Your task to perform on an android device: turn on bluetooth scan Image 0: 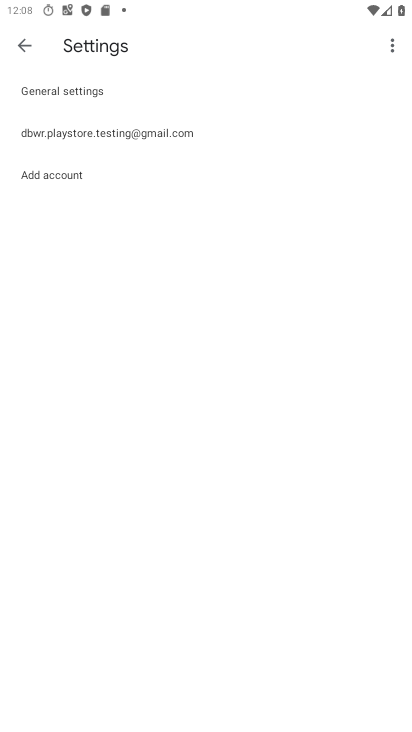
Step 0: press home button
Your task to perform on an android device: turn on bluetooth scan Image 1: 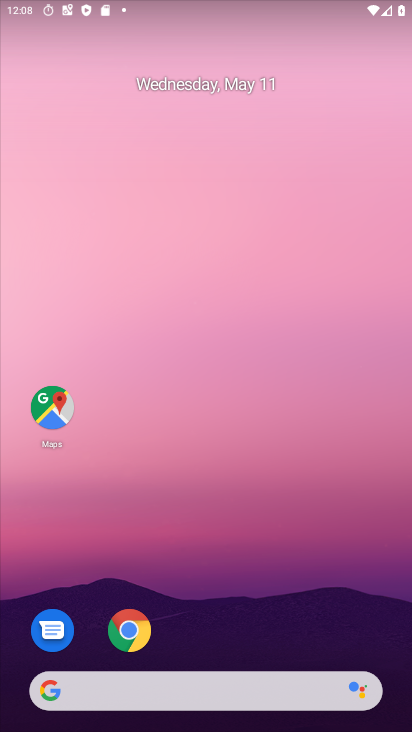
Step 1: drag from (220, 587) to (293, 77)
Your task to perform on an android device: turn on bluetooth scan Image 2: 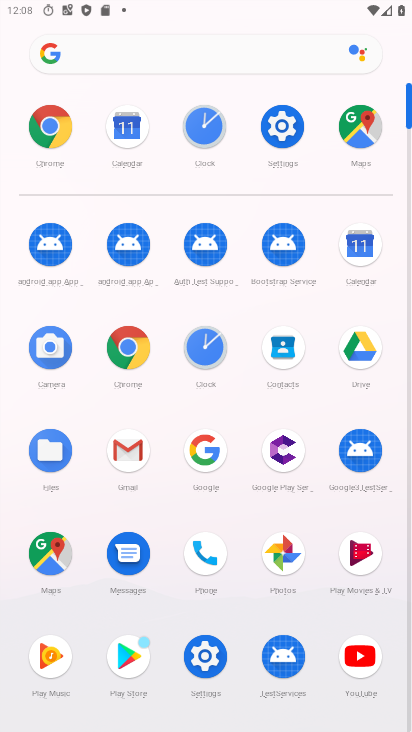
Step 2: click (271, 129)
Your task to perform on an android device: turn on bluetooth scan Image 3: 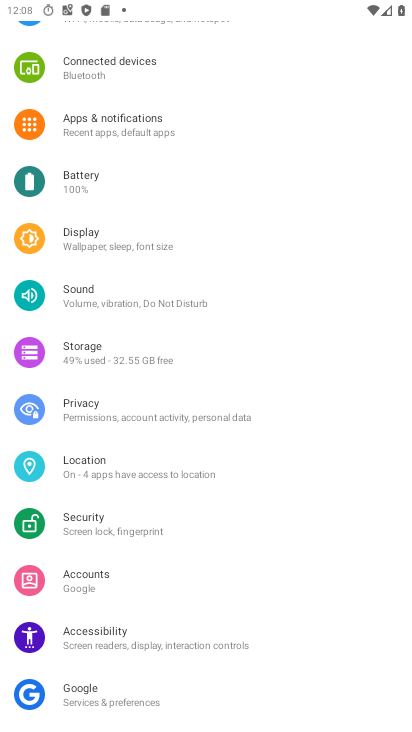
Step 3: drag from (139, 623) to (237, 221)
Your task to perform on an android device: turn on bluetooth scan Image 4: 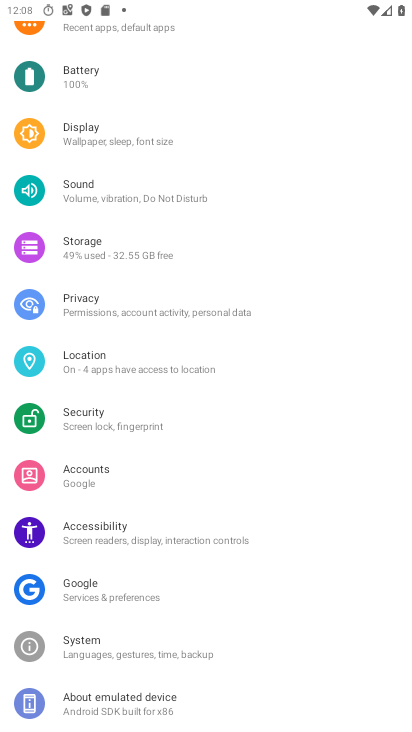
Step 4: click (117, 362)
Your task to perform on an android device: turn on bluetooth scan Image 5: 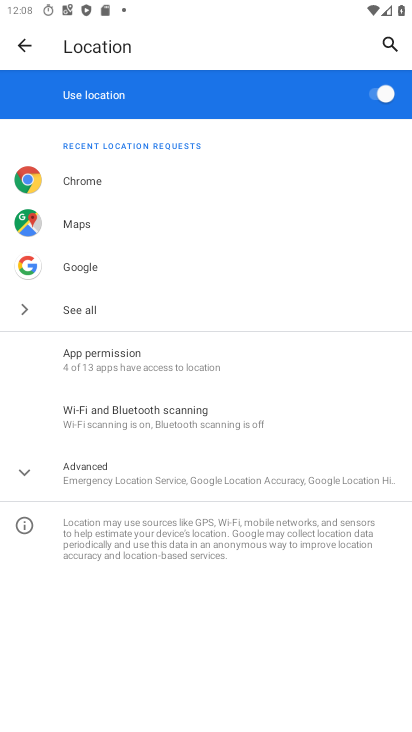
Step 5: click (102, 476)
Your task to perform on an android device: turn on bluetooth scan Image 6: 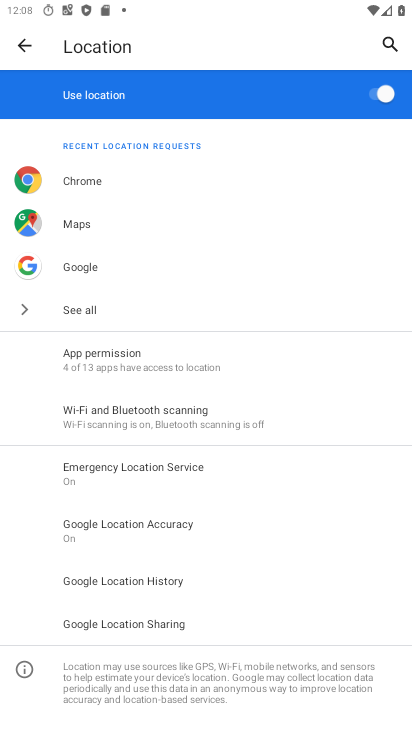
Step 6: click (153, 422)
Your task to perform on an android device: turn on bluetooth scan Image 7: 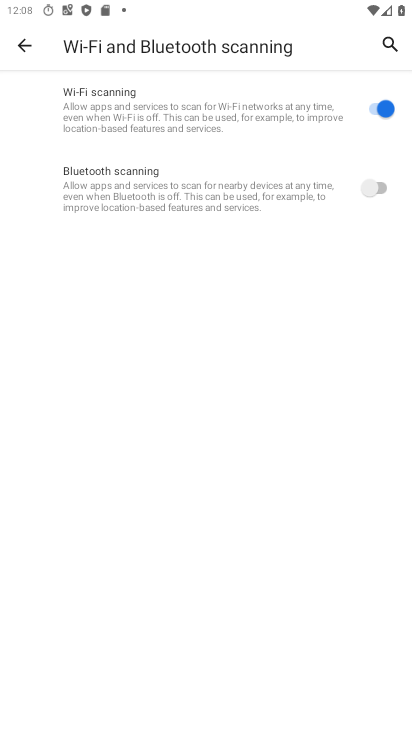
Step 7: click (359, 195)
Your task to perform on an android device: turn on bluetooth scan Image 8: 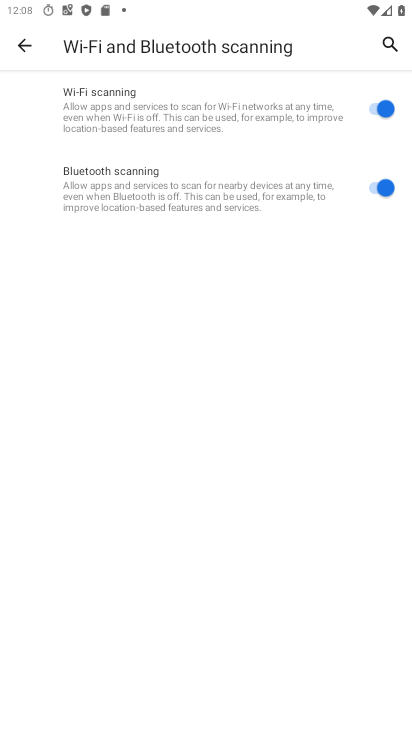
Step 8: task complete